Your task to perform on an android device: Go to internet settings Image 0: 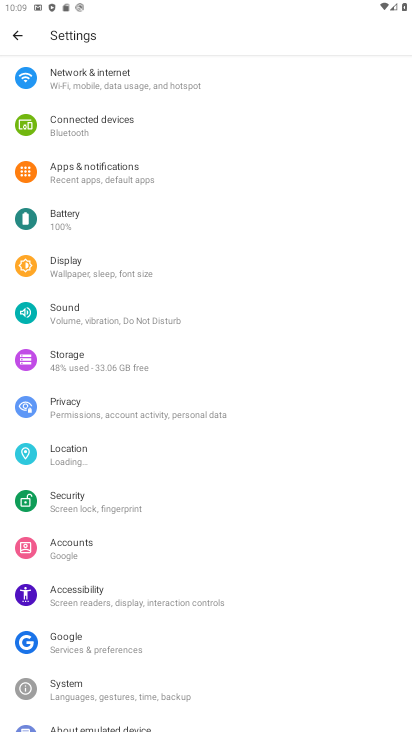
Step 0: click (140, 100)
Your task to perform on an android device: Go to internet settings Image 1: 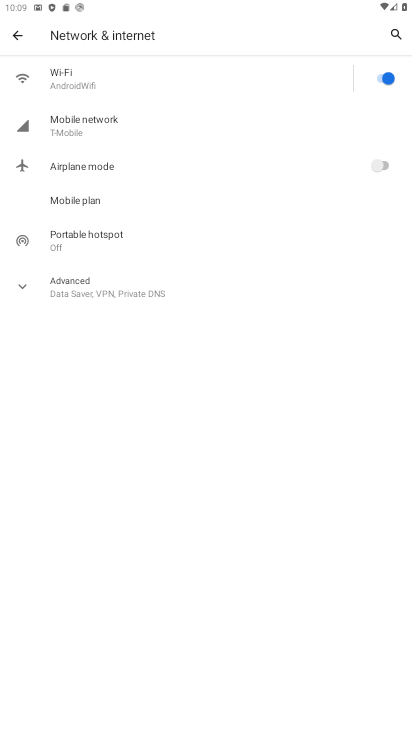
Step 1: click (130, 133)
Your task to perform on an android device: Go to internet settings Image 2: 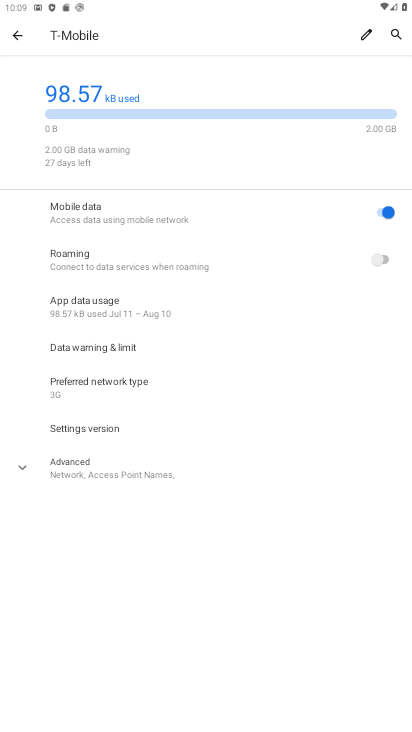
Step 2: task complete